Your task to perform on an android device: Go to Yahoo.com Image 0: 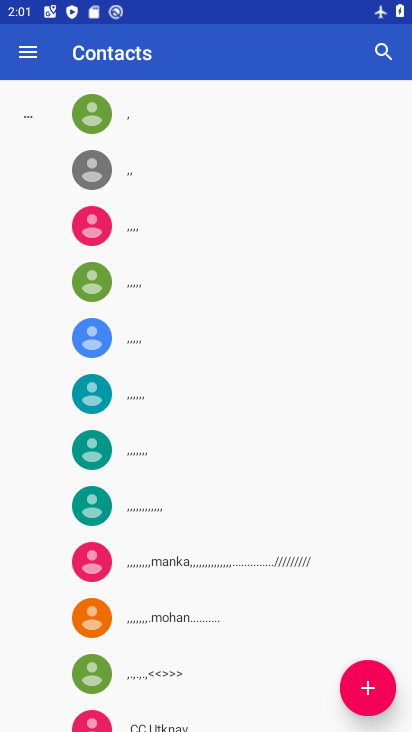
Step 0: press home button
Your task to perform on an android device: Go to Yahoo.com Image 1: 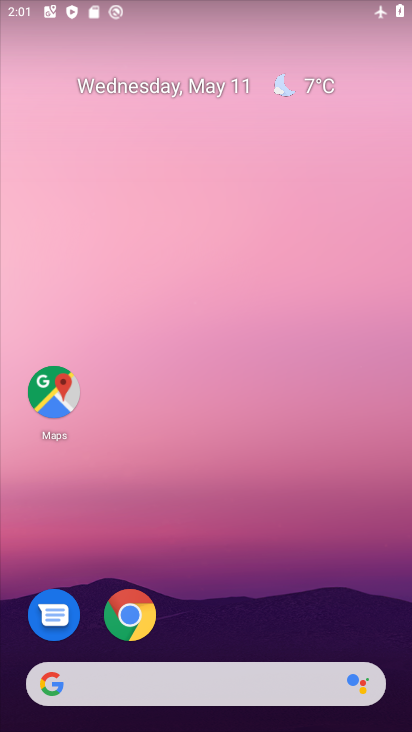
Step 1: click (131, 609)
Your task to perform on an android device: Go to Yahoo.com Image 2: 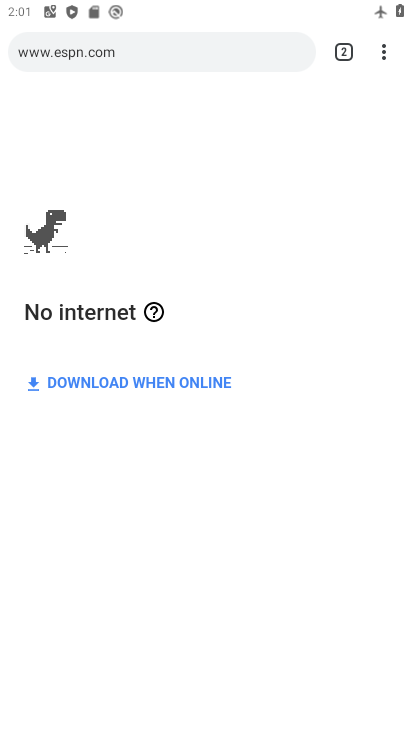
Step 2: click (185, 51)
Your task to perform on an android device: Go to Yahoo.com Image 3: 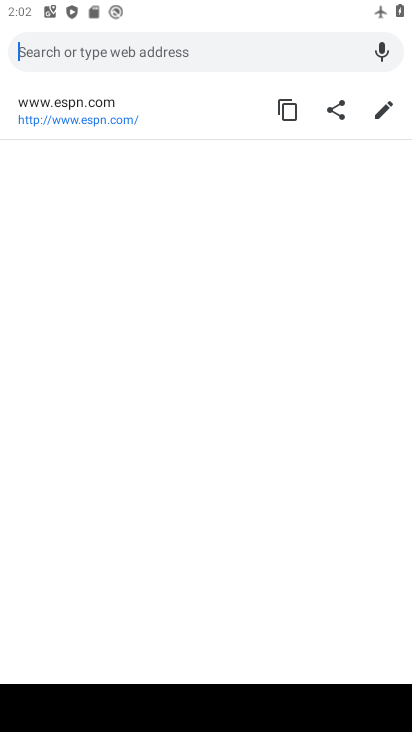
Step 3: type "yahoo.com"
Your task to perform on an android device: Go to Yahoo.com Image 4: 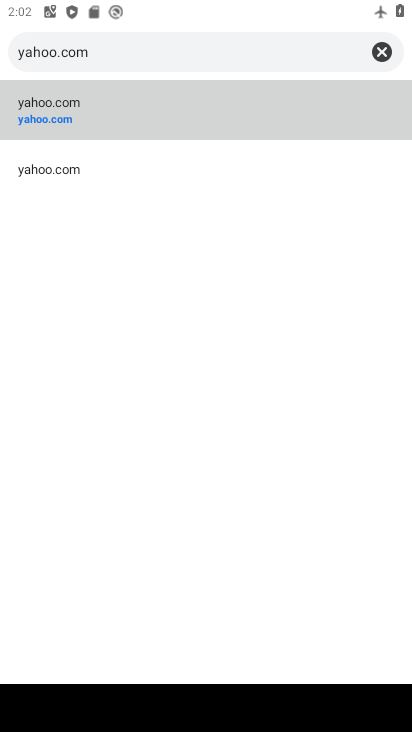
Step 4: click (54, 100)
Your task to perform on an android device: Go to Yahoo.com Image 5: 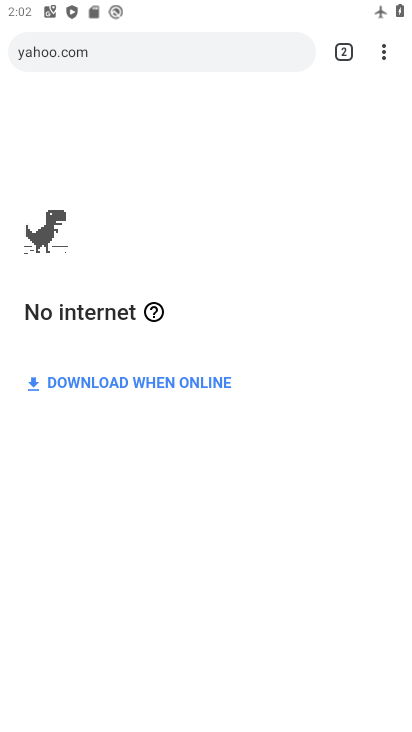
Step 5: task complete